Your task to perform on an android device: Open calendar and show me the first week of next month Image 0: 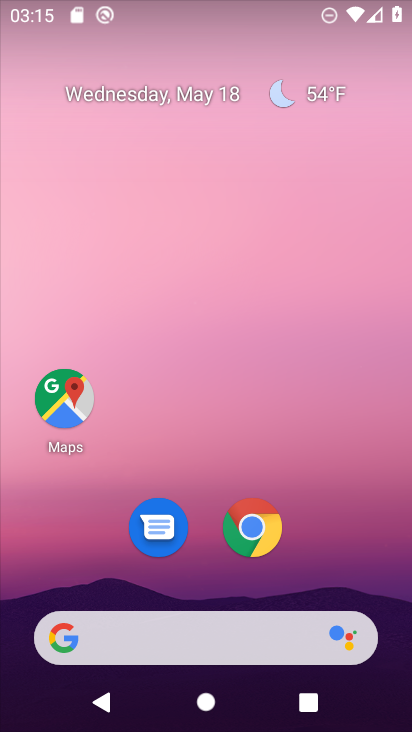
Step 0: drag from (174, 631) to (128, 24)
Your task to perform on an android device: Open calendar and show me the first week of next month Image 1: 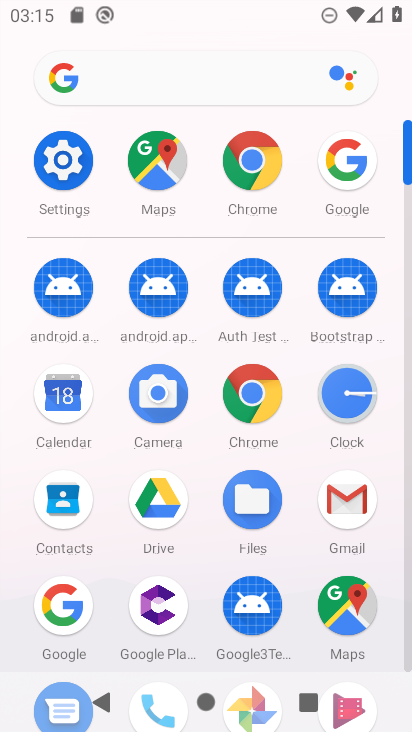
Step 1: click (48, 397)
Your task to perform on an android device: Open calendar and show me the first week of next month Image 2: 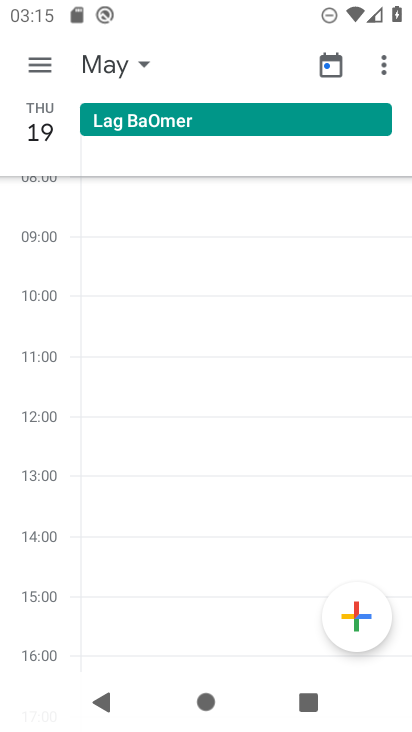
Step 2: click (35, 65)
Your task to perform on an android device: Open calendar and show me the first week of next month Image 3: 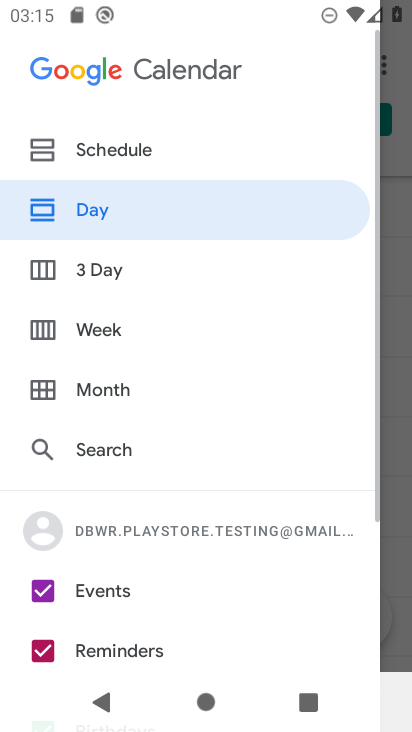
Step 3: click (109, 335)
Your task to perform on an android device: Open calendar and show me the first week of next month Image 4: 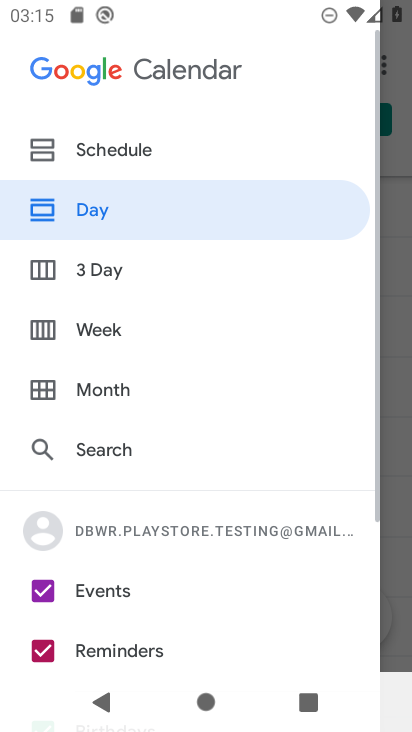
Step 4: click (100, 355)
Your task to perform on an android device: Open calendar and show me the first week of next month Image 5: 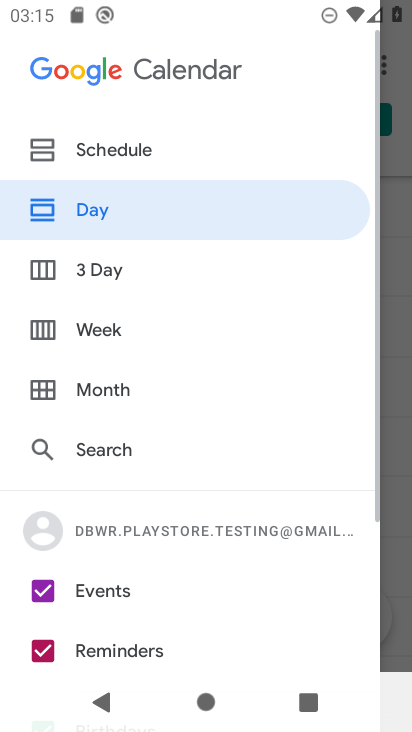
Step 5: click (100, 328)
Your task to perform on an android device: Open calendar and show me the first week of next month Image 6: 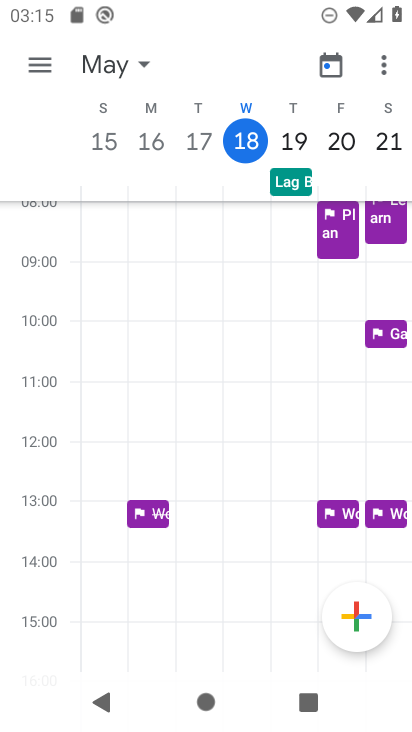
Step 6: task complete